Your task to perform on an android device: Go to settings Image 0: 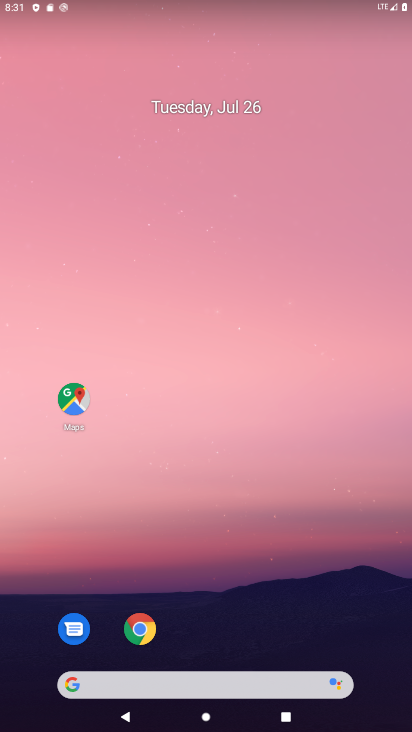
Step 0: drag from (245, 658) to (215, 143)
Your task to perform on an android device: Go to settings Image 1: 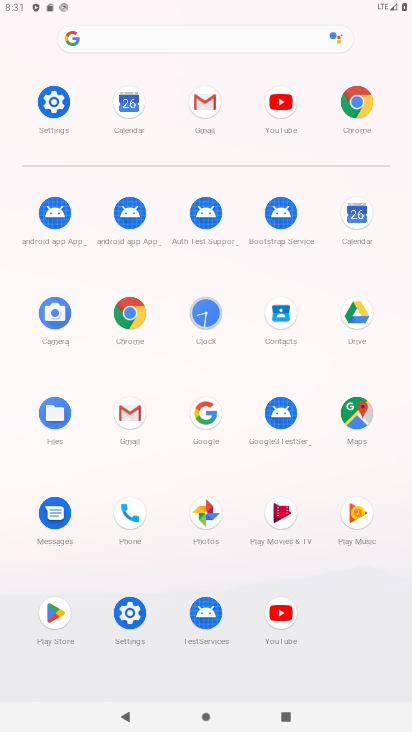
Step 1: click (58, 96)
Your task to perform on an android device: Go to settings Image 2: 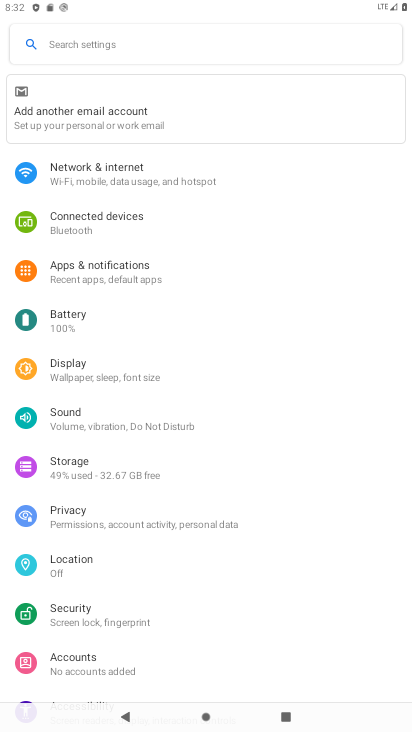
Step 2: task complete